Your task to perform on an android device: turn on javascript in the chrome app Image 0: 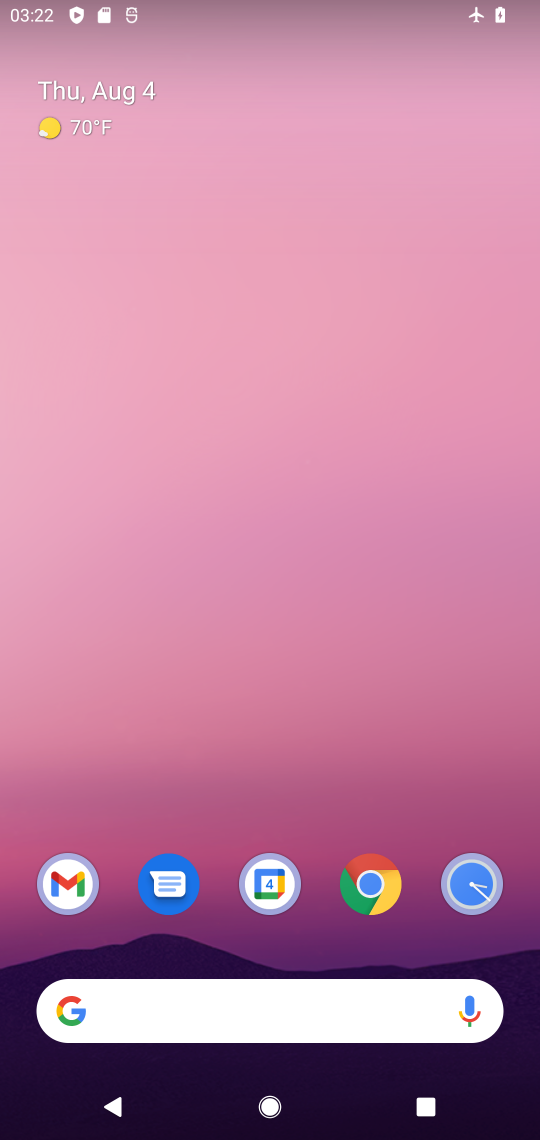
Step 0: drag from (314, 781) to (348, 296)
Your task to perform on an android device: turn on javascript in the chrome app Image 1: 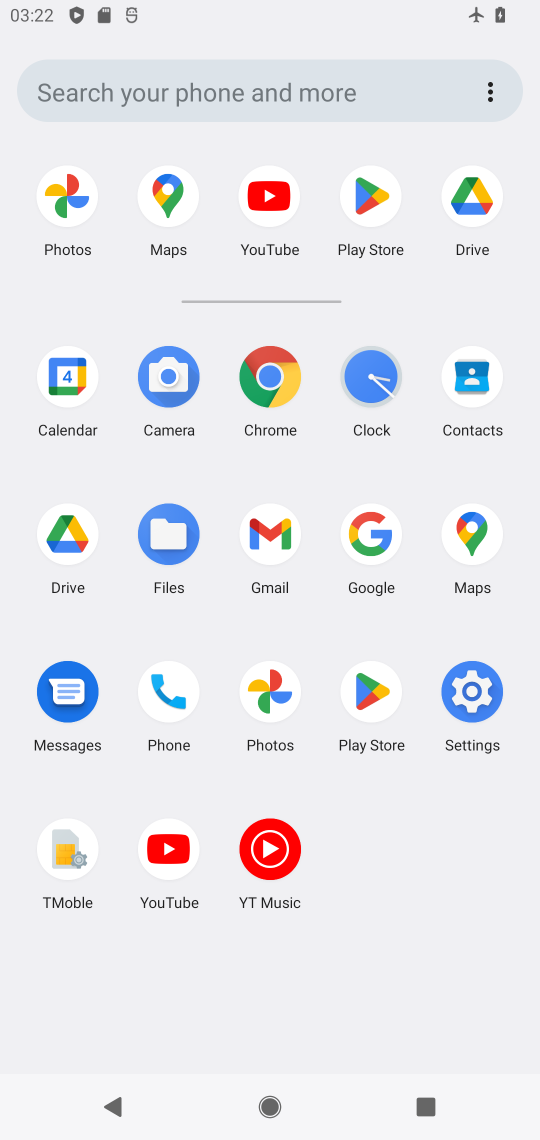
Step 1: click (270, 386)
Your task to perform on an android device: turn on javascript in the chrome app Image 2: 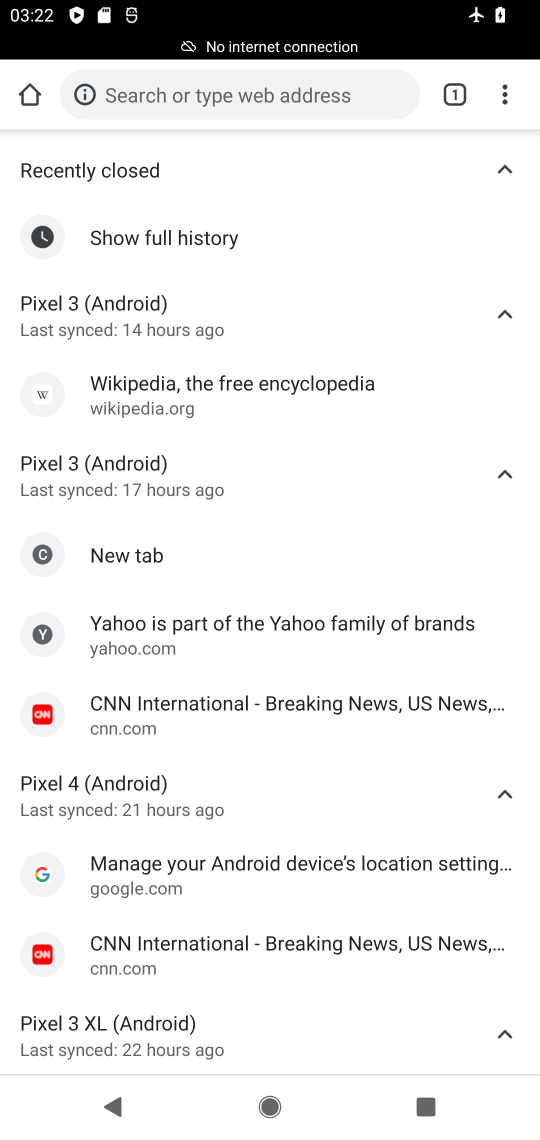
Step 2: click (503, 97)
Your task to perform on an android device: turn on javascript in the chrome app Image 3: 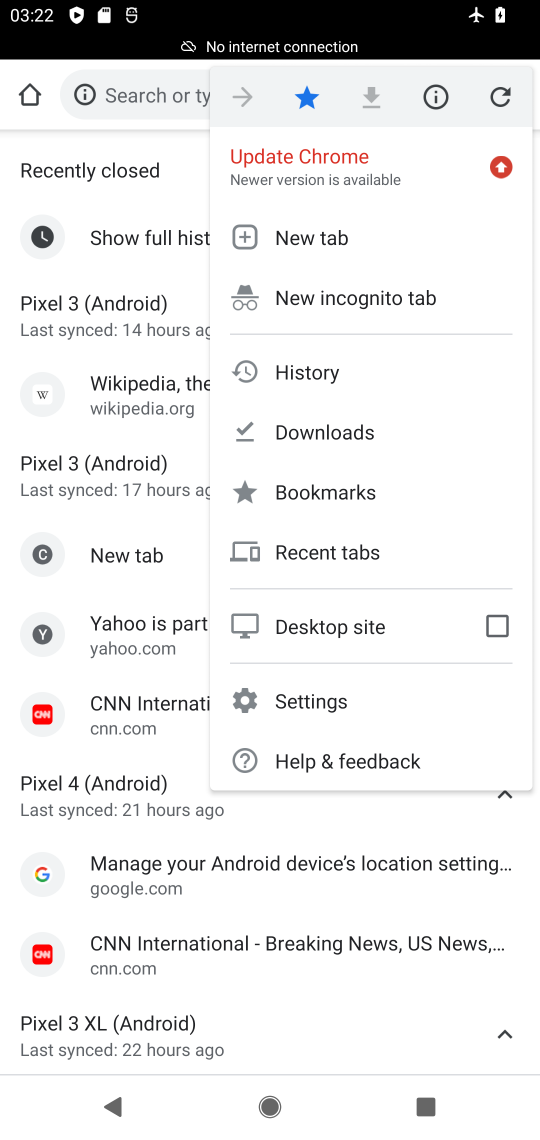
Step 3: click (326, 704)
Your task to perform on an android device: turn on javascript in the chrome app Image 4: 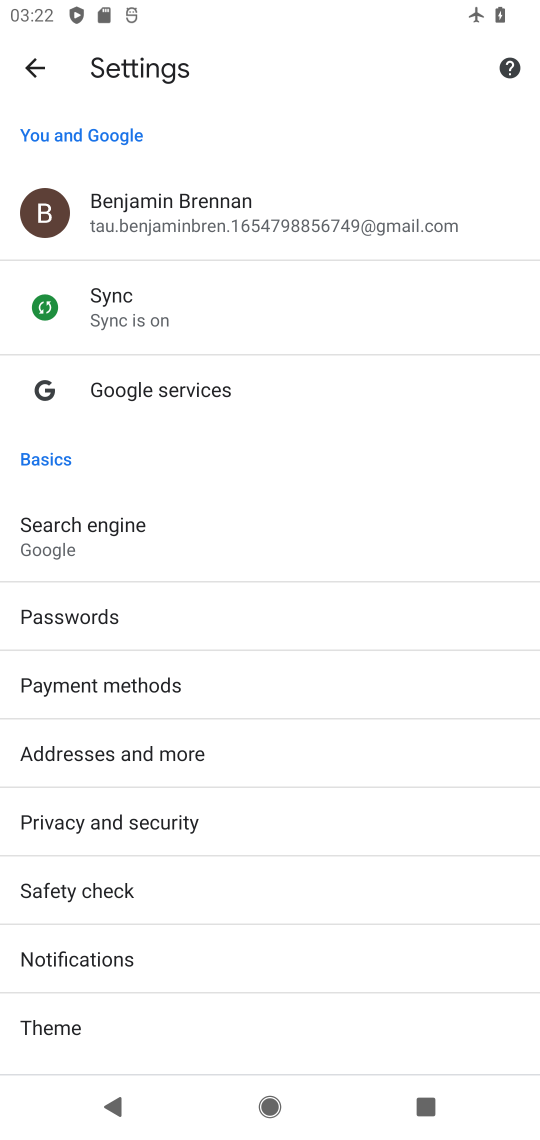
Step 4: drag from (390, 895) to (396, 673)
Your task to perform on an android device: turn on javascript in the chrome app Image 5: 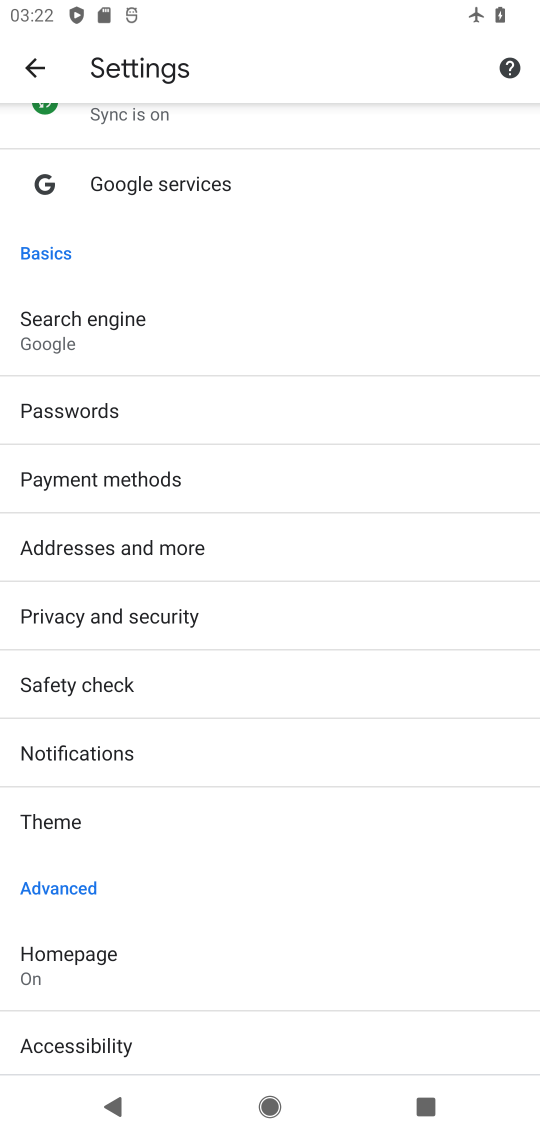
Step 5: drag from (364, 904) to (356, 732)
Your task to perform on an android device: turn on javascript in the chrome app Image 6: 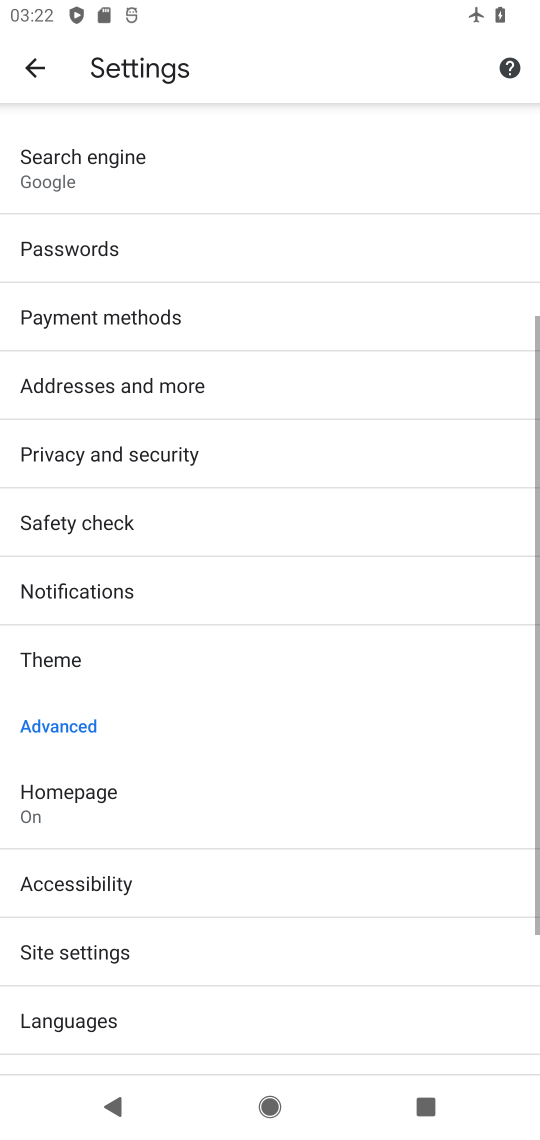
Step 6: drag from (346, 966) to (354, 626)
Your task to perform on an android device: turn on javascript in the chrome app Image 7: 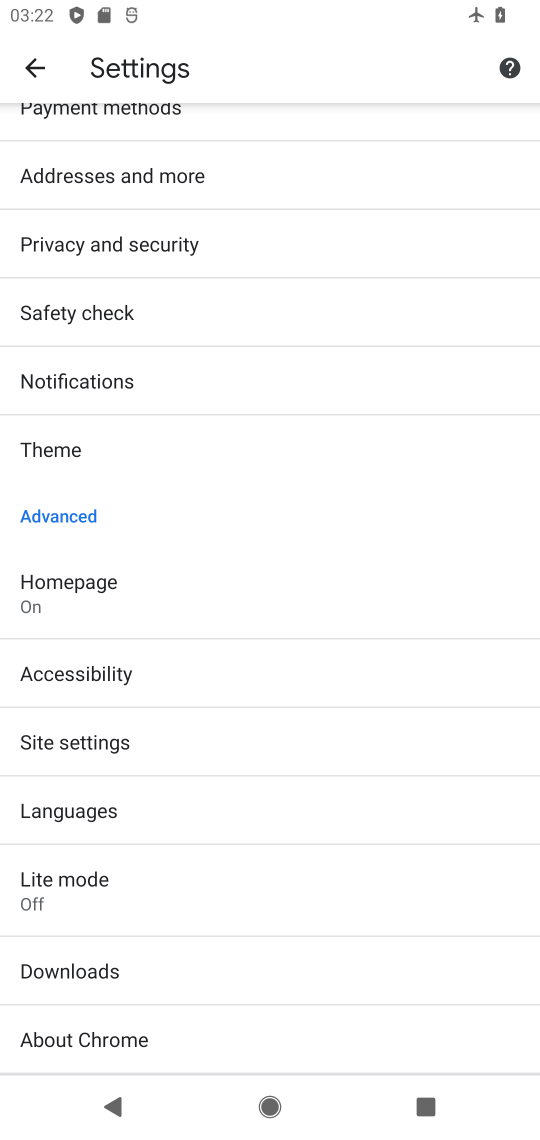
Step 7: click (344, 739)
Your task to perform on an android device: turn on javascript in the chrome app Image 8: 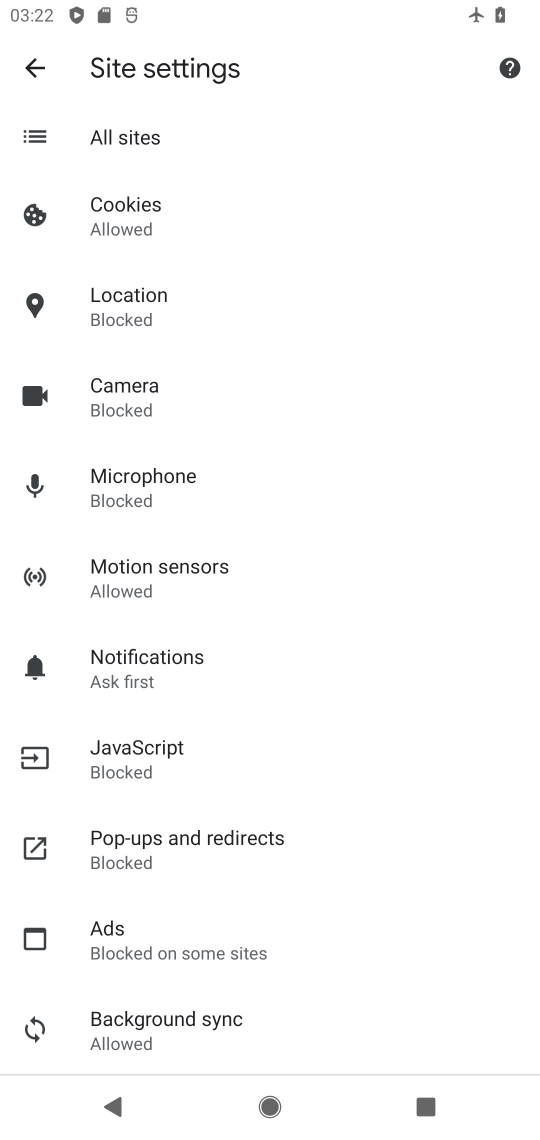
Step 8: drag from (411, 905) to (406, 706)
Your task to perform on an android device: turn on javascript in the chrome app Image 9: 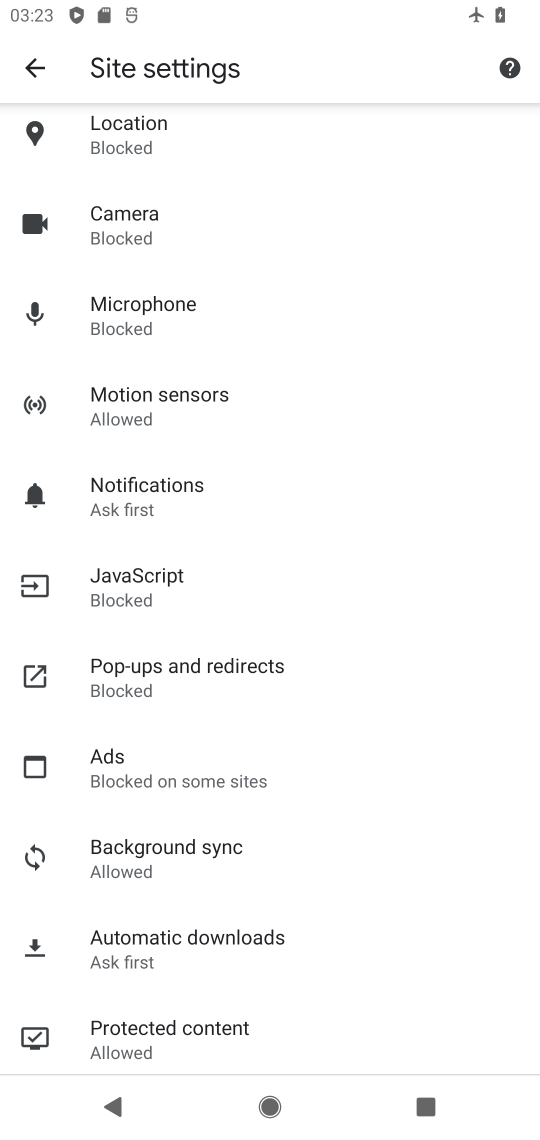
Step 9: click (335, 585)
Your task to perform on an android device: turn on javascript in the chrome app Image 10: 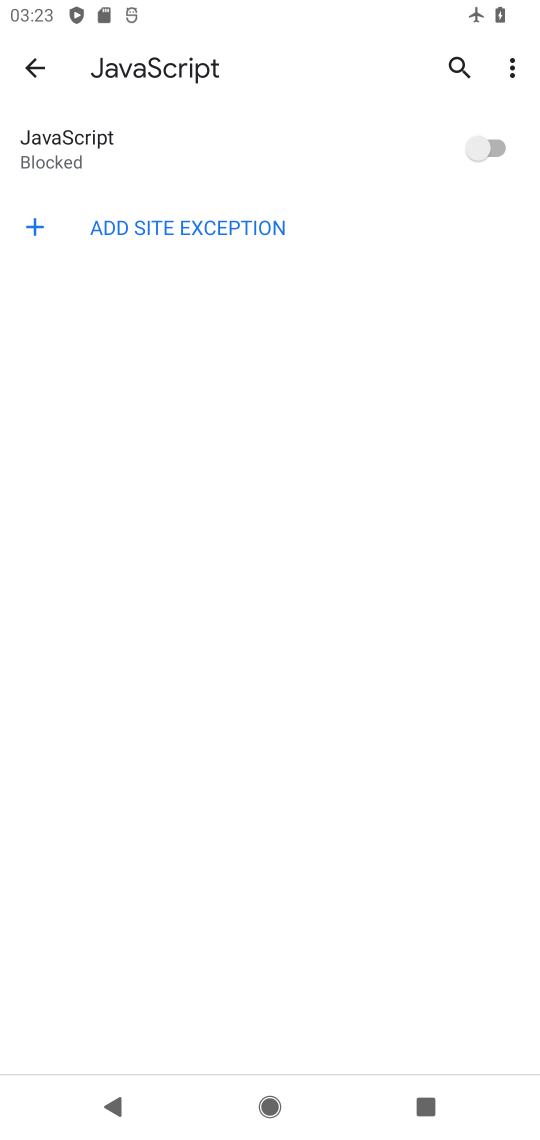
Step 10: click (484, 149)
Your task to perform on an android device: turn on javascript in the chrome app Image 11: 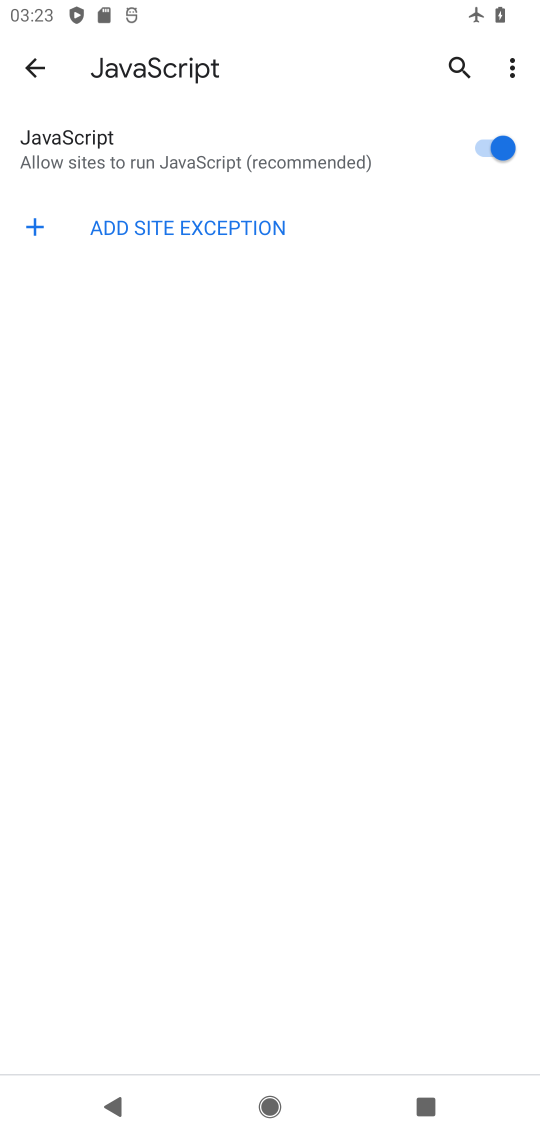
Step 11: task complete